Your task to perform on an android device: turn off location history Image 0: 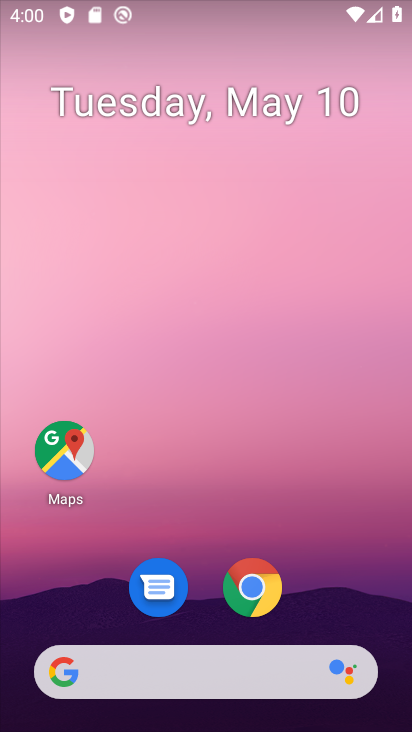
Step 0: drag from (258, 689) to (280, 176)
Your task to perform on an android device: turn off location history Image 1: 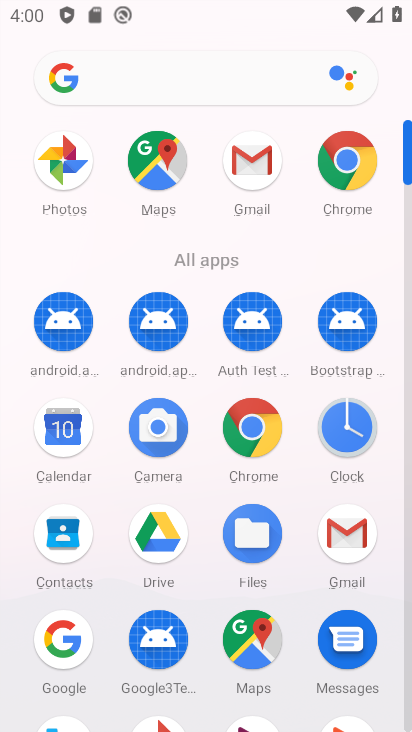
Step 1: drag from (196, 597) to (237, 331)
Your task to perform on an android device: turn off location history Image 2: 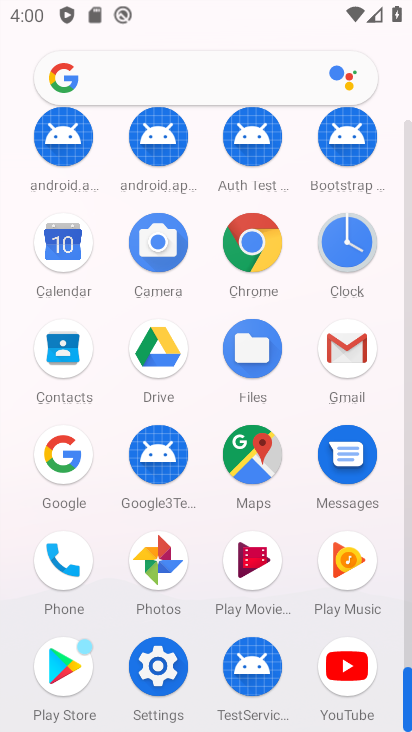
Step 2: click (158, 655)
Your task to perform on an android device: turn off location history Image 3: 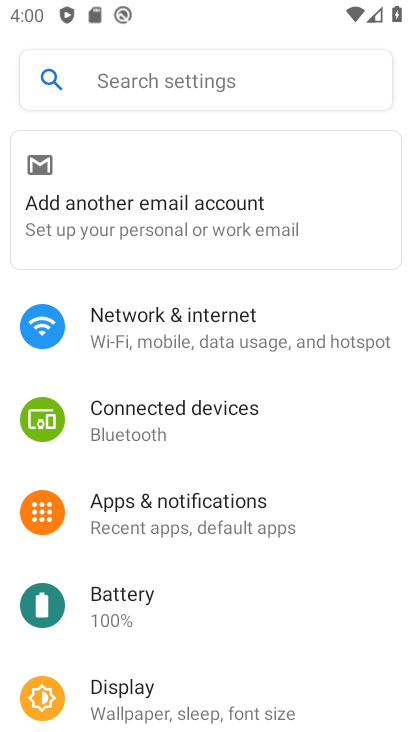
Step 3: click (200, 72)
Your task to perform on an android device: turn off location history Image 4: 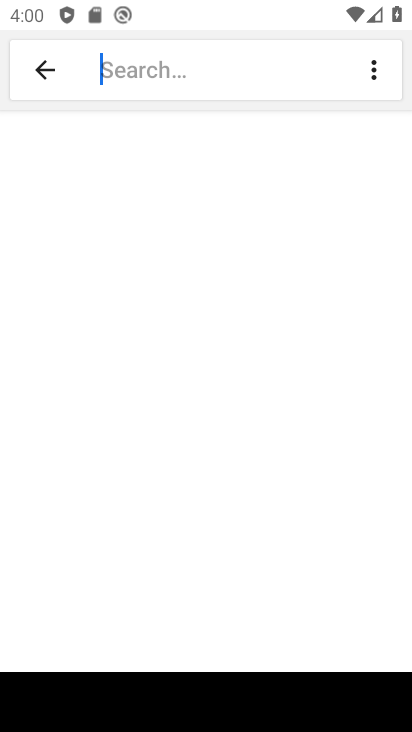
Step 4: drag from (397, 714) to (381, 613)
Your task to perform on an android device: turn off location history Image 5: 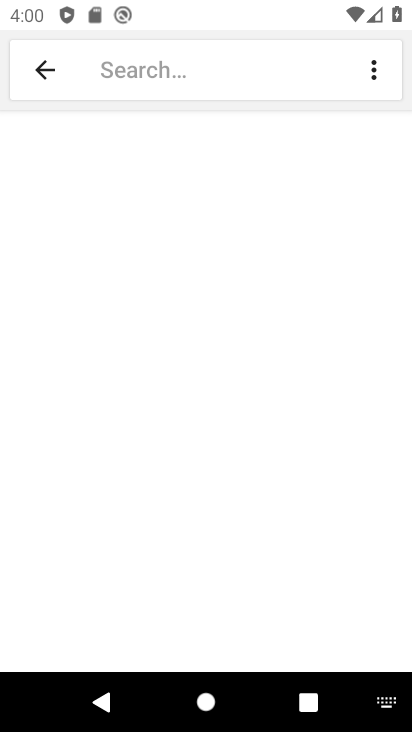
Step 5: click (393, 698)
Your task to perform on an android device: turn off location history Image 6: 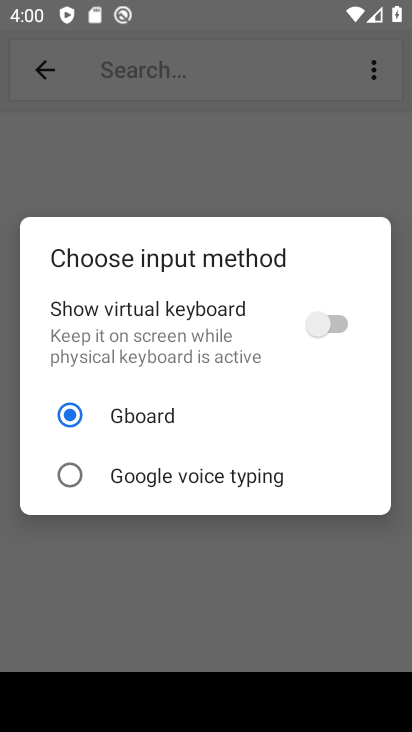
Step 6: click (335, 325)
Your task to perform on an android device: turn off location history Image 7: 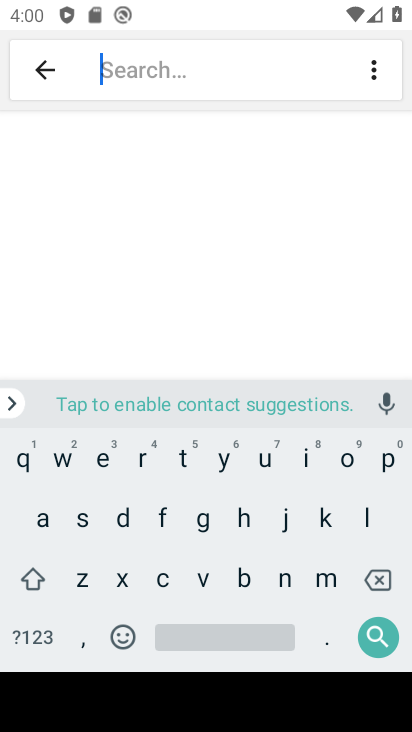
Step 7: click (362, 521)
Your task to perform on an android device: turn off location history Image 8: 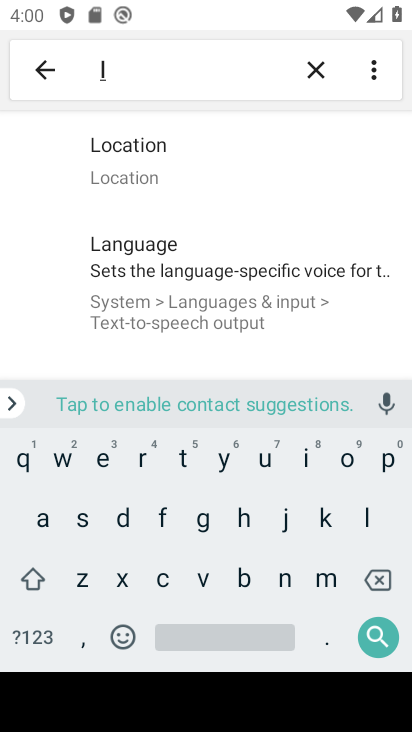
Step 8: click (339, 465)
Your task to perform on an android device: turn off location history Image 9: 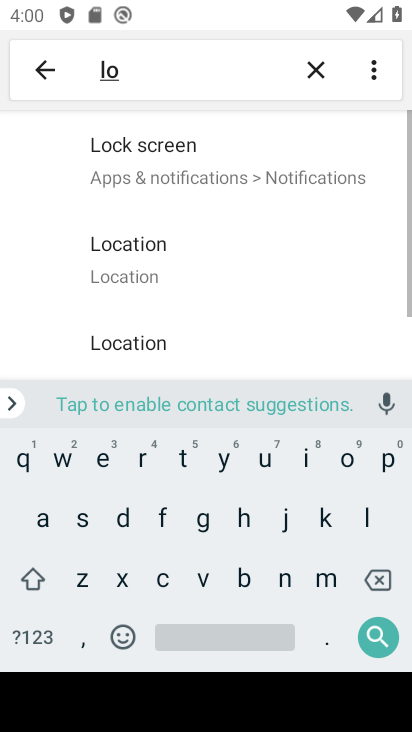
Step 9: click (160, 244)
Your task to perform on an android device: turn off location history Image 10: 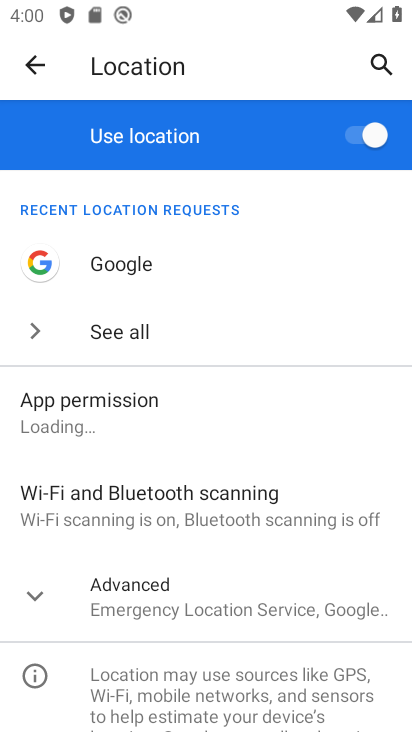
Step 10: click (354, 123)
Your task to perform on an android device: turn off location history Image 11: 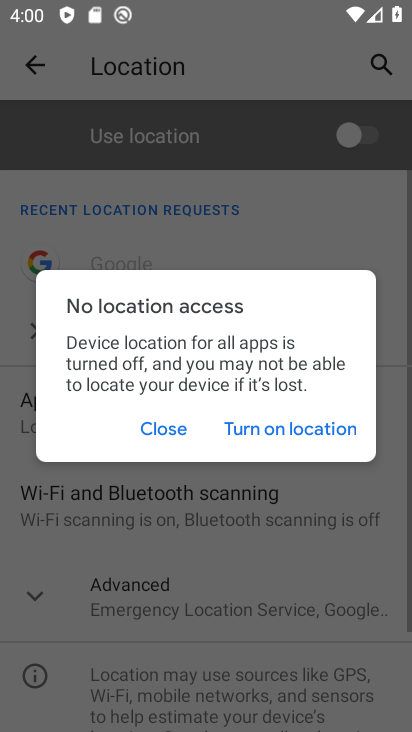
Step 11: task complete